Your task to perform on an android device: change the clock display to digital Image 0: 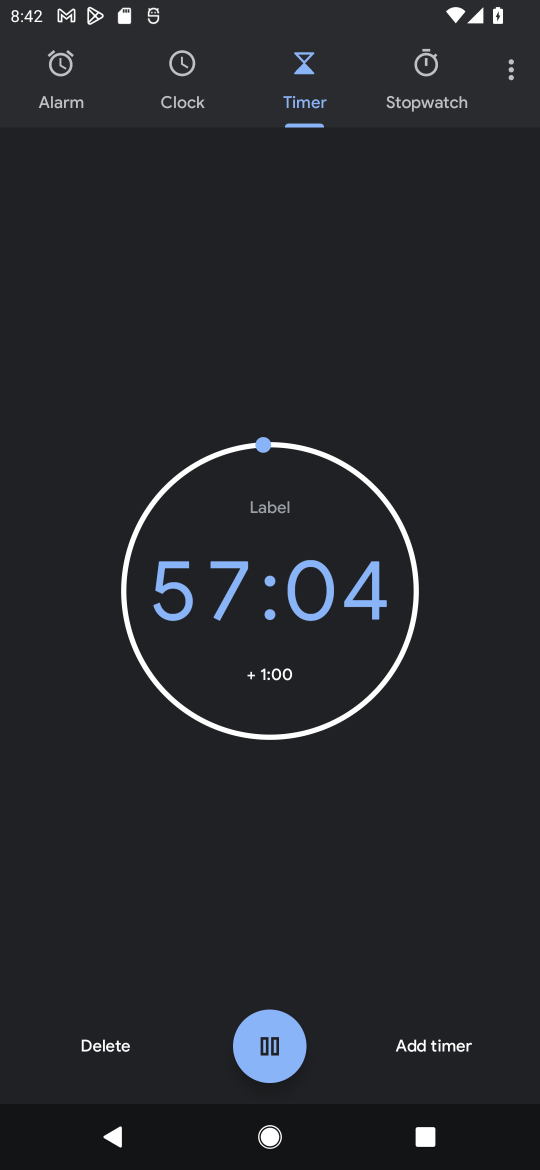
Step 0: press home button
Your task to perform on an android device: change the clock display to digital Image 1: 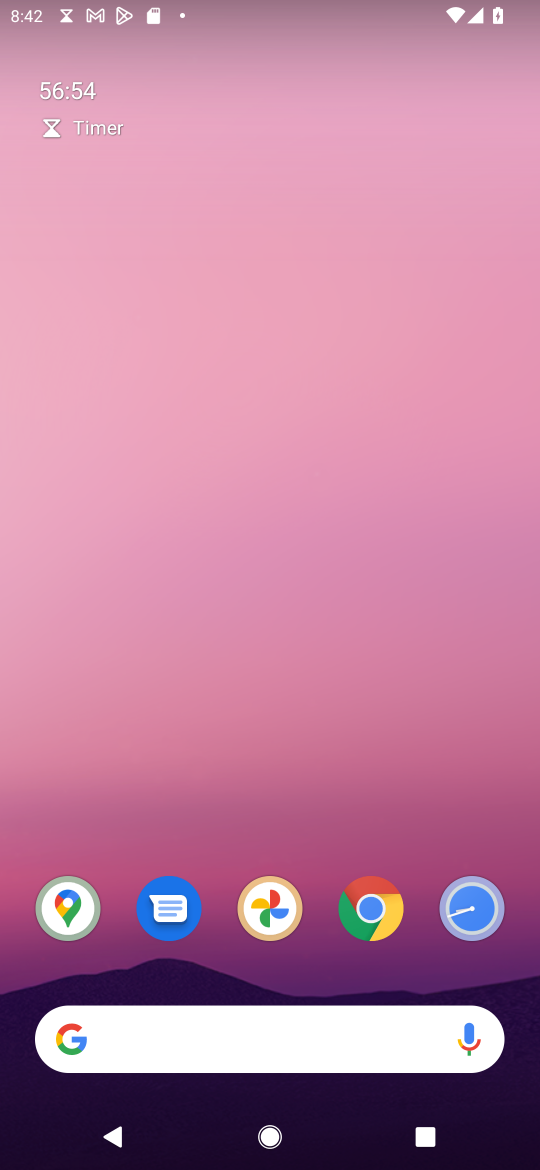
Step 1: click (478, 922)
Your task to perform on an android device: change the clock display to digital Image 2: 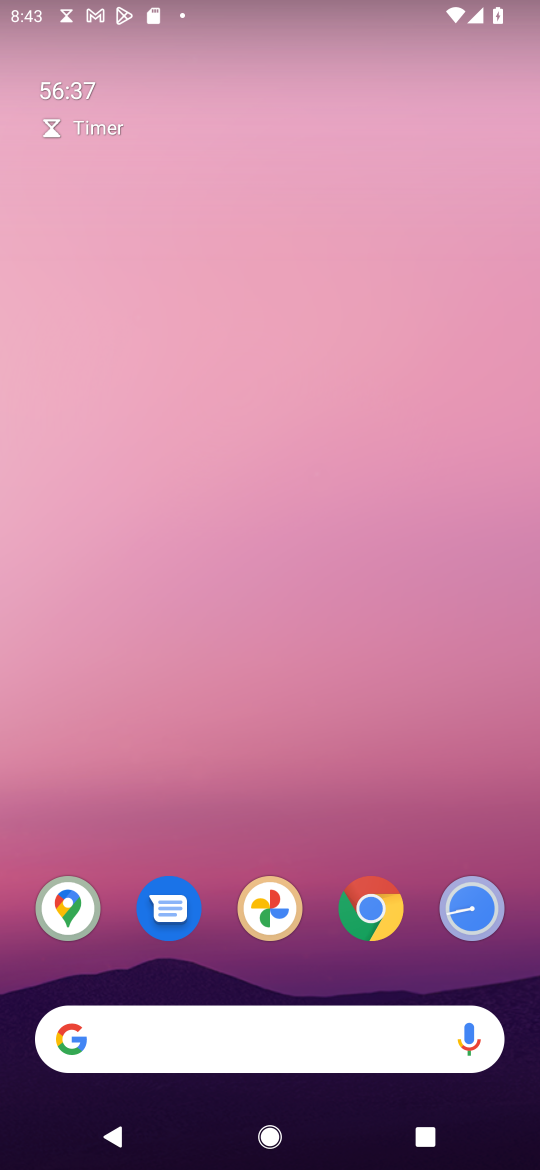
Step 2: drag from (280, 1025) to (322, 336)
Your task to perform on an android device: change the clock display to digital Image 3: 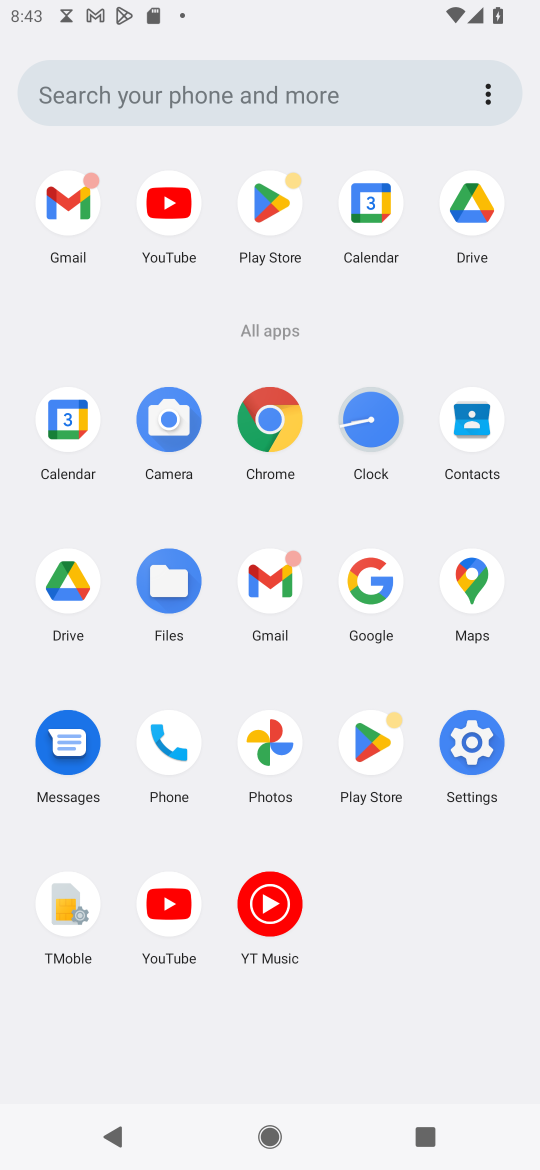
Step 3: click (371, 433)
Your task to perform on an android device: change the clock display to digital Image 4: 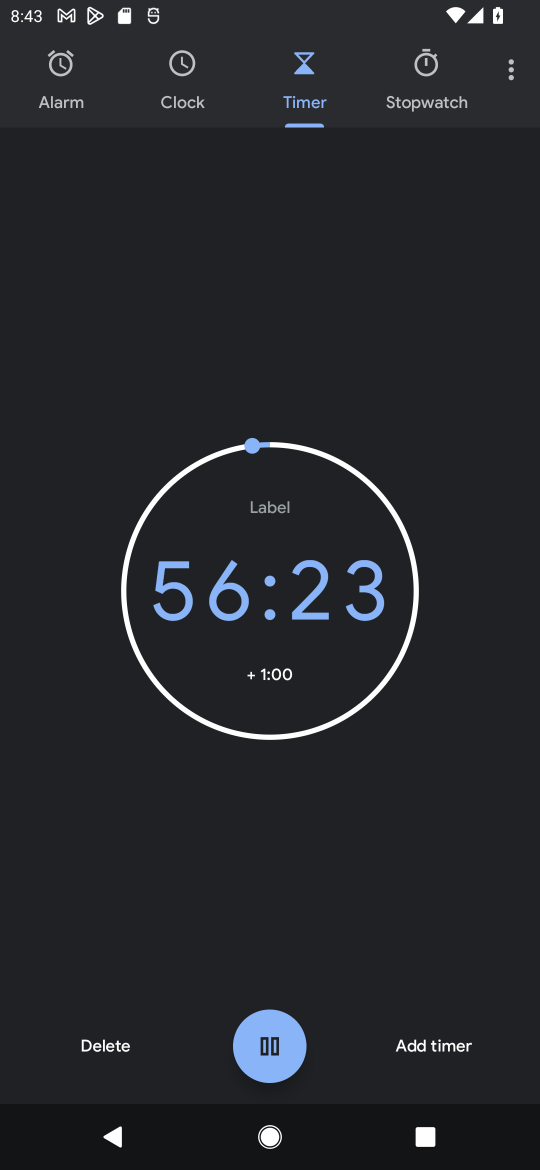
Step 4: click (496, 78)
Your task to perform on an android device: change the clock display to digital Image 5: 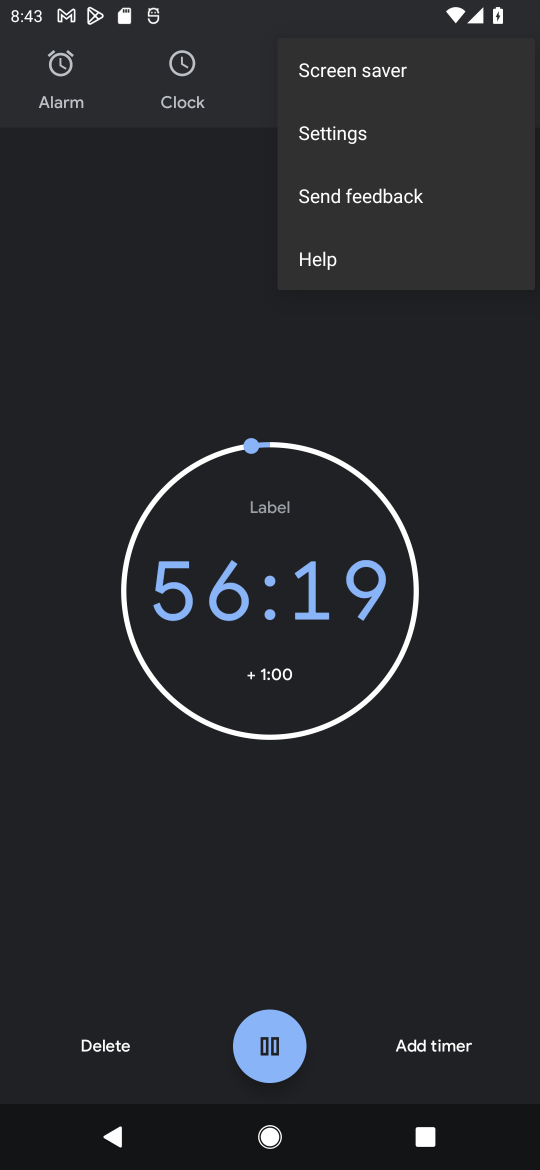
Step 5: click (370, 124)
Your task to perform on an android device: change the clock display to digital Image 6: 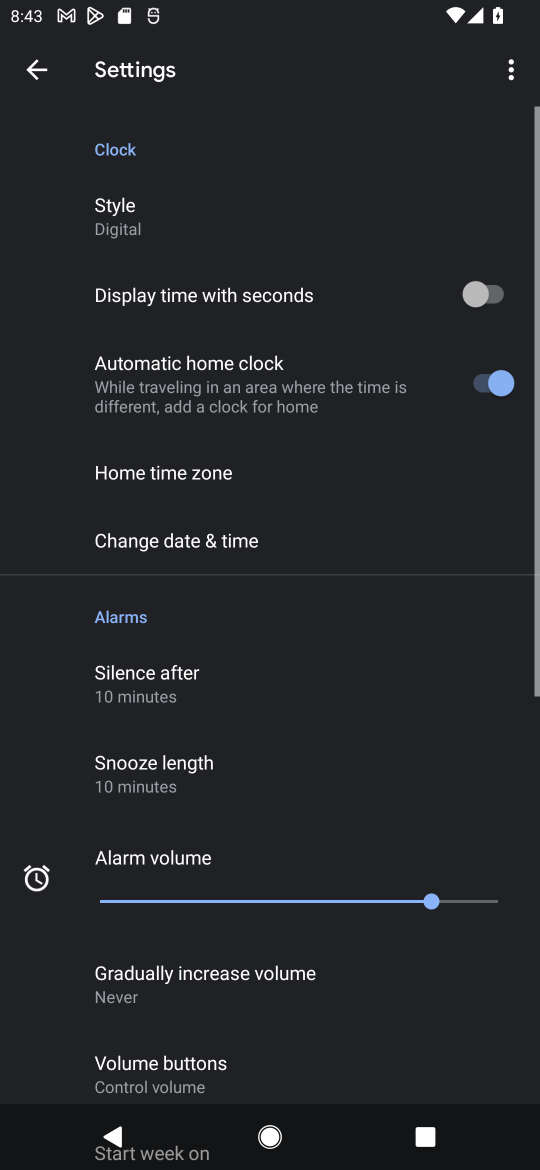
Step 6: click (156, 222)
Your task to perform on an android device: change the clock display to digital Image 7: 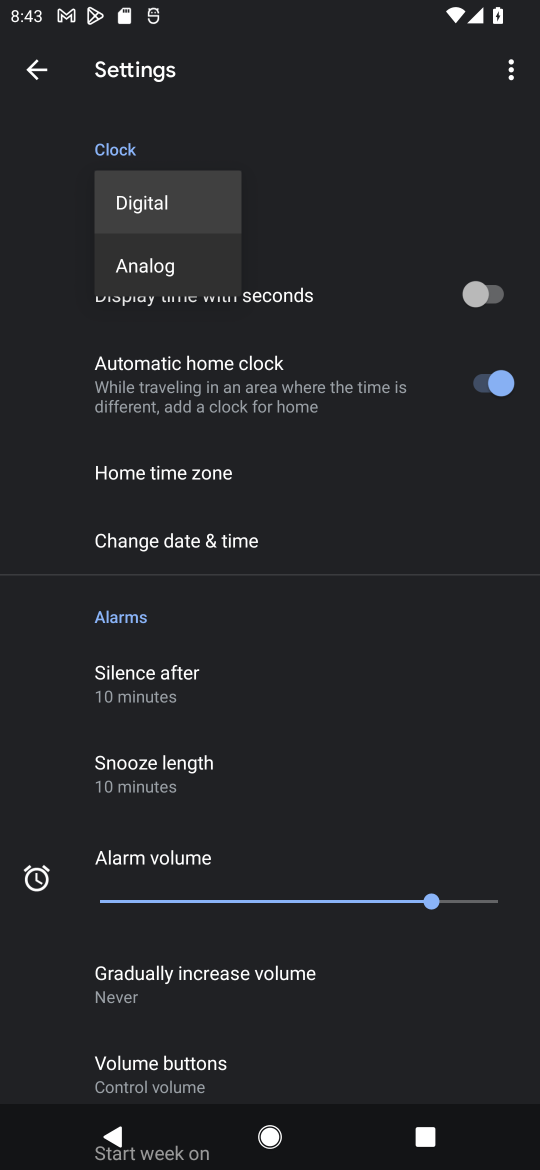
Step 7: click (167, 215)
Your task to perform on an android device: change the clock display to digital Image 8: 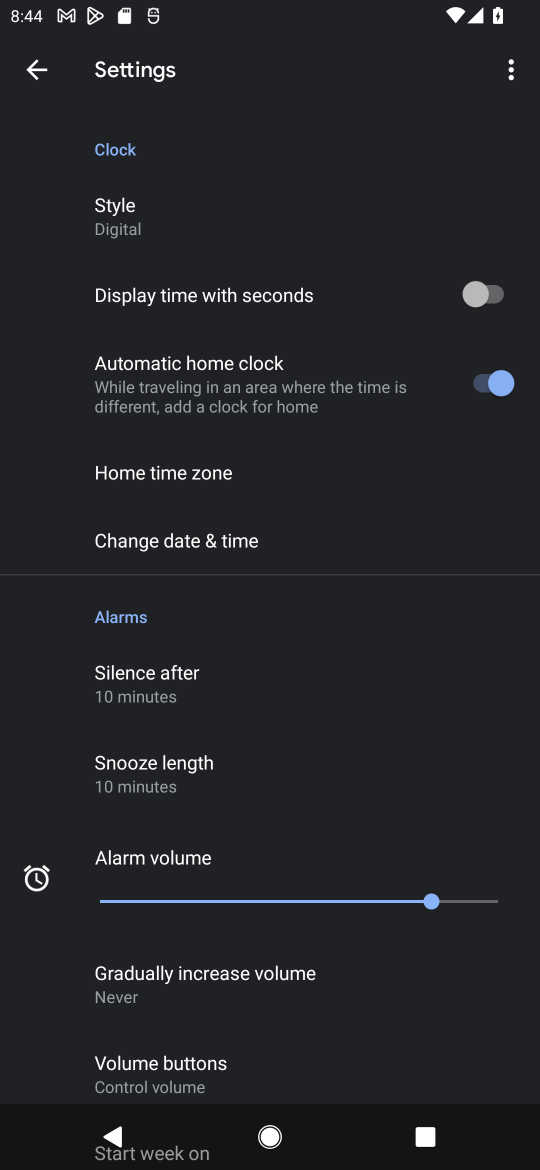
Step 8: click (167, 215)
Your task to perform on an android device: change the clock display to digital Image 9: 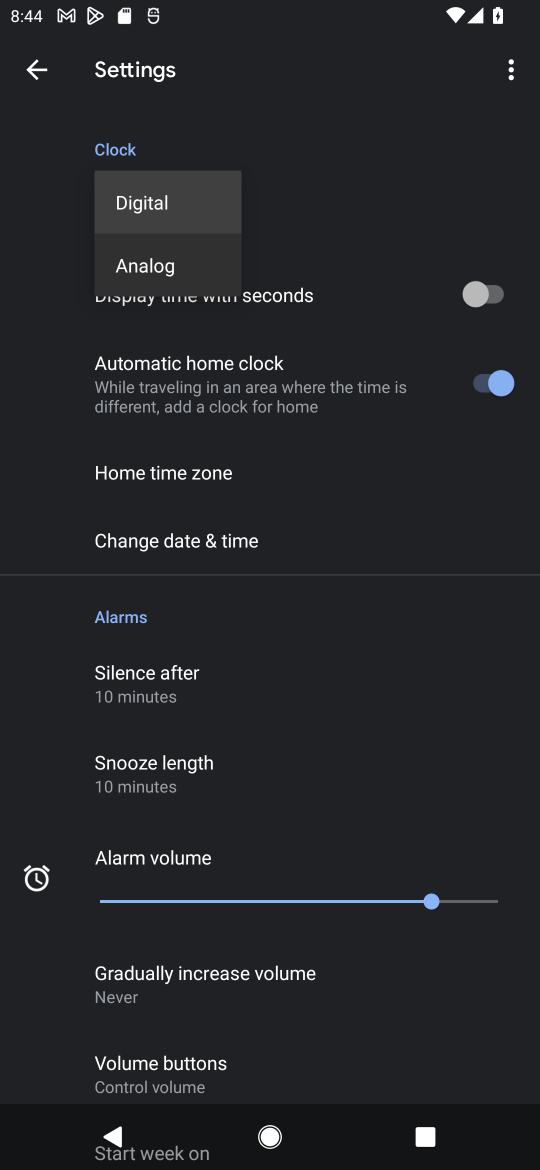
Step 9: task complete